Your task to perform on an android device: see creations saved in the google photos Image 0: 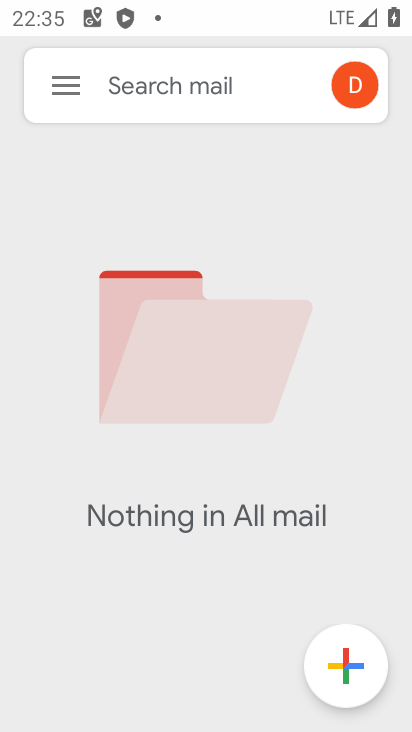
Step 0: press home button
Your task to perform on an android device: see creations saved in the google photos Image 1: 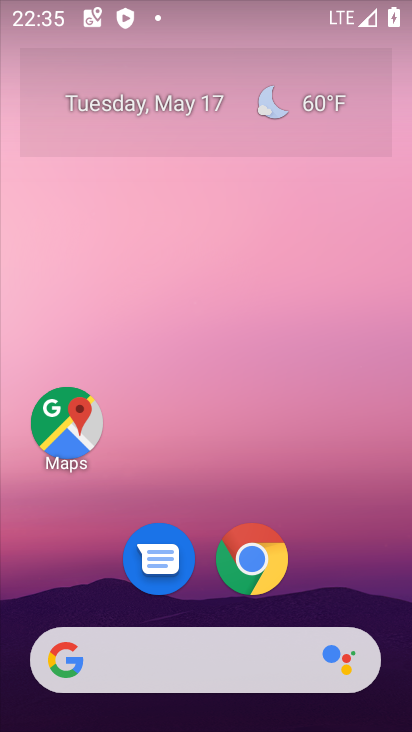
Step 1: drag from (356, 555) to (362, 181)
Your task to perform on an android device: see creations saved in the google photos Image 2: 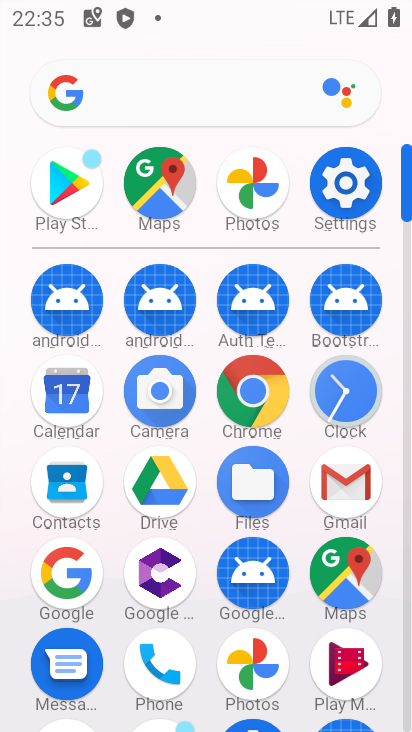
Step 2: click (257, 199)
Your task to perform on an android device: see creations saved in the google photos Image 3: 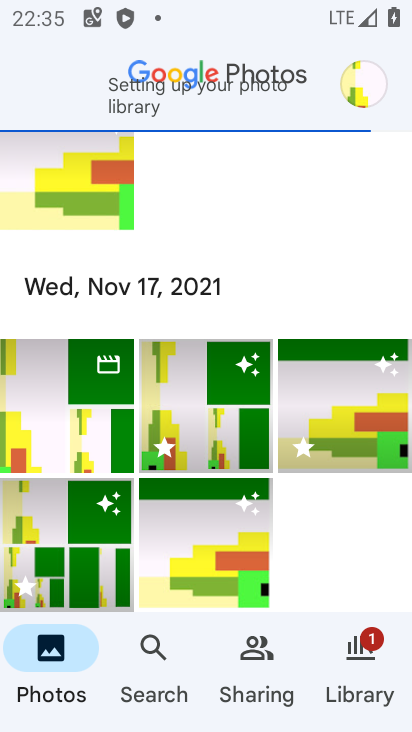
Step 3: click (340, 692)
Your task to perform on an android device: see creations saved in the google photos Image 4: 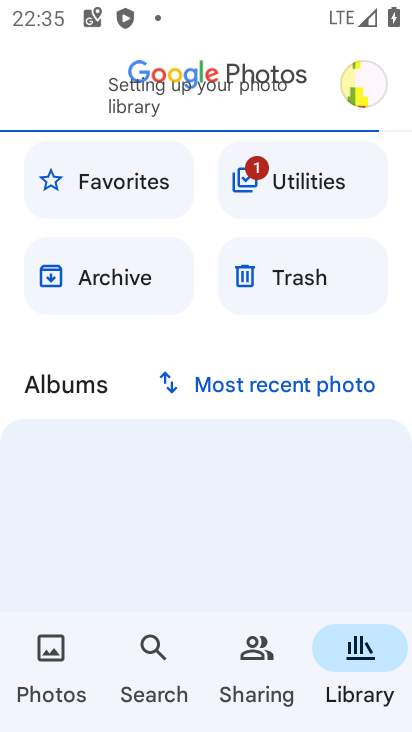
Step 4: click (287, 185)
Your task to perform on an android device: see creations saved in the google photos Image 5: 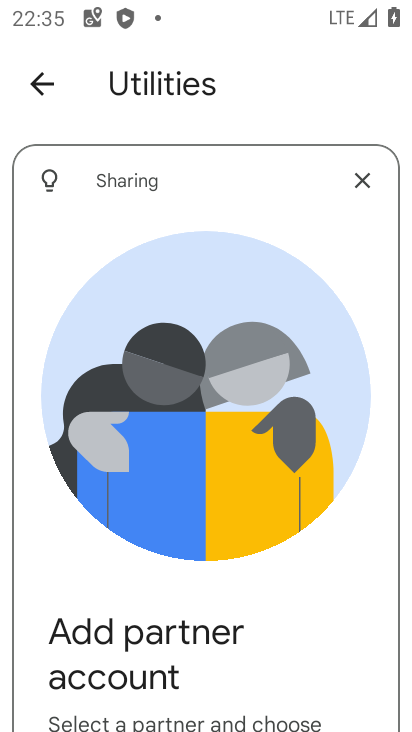
Step 5: task complete